Your task to perform on an android device: open chrome and create a bookmark for the current page Image 0: 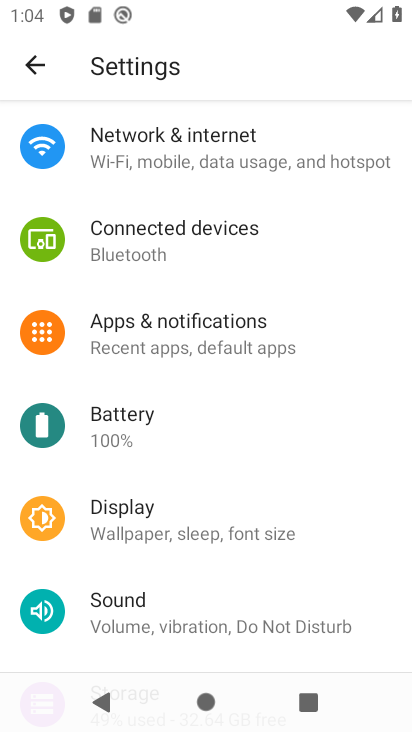
Step 0: press home button
Your task to perform on an android device: open chrome and create a bookmark for the current page Image 1: 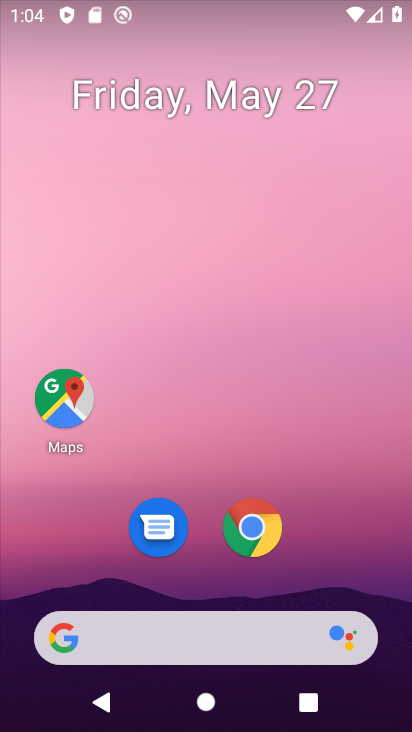
Step 1: click (268, 540)
Your task to perform on an android device: open chrome and create a bookmark for the current page Image 2: 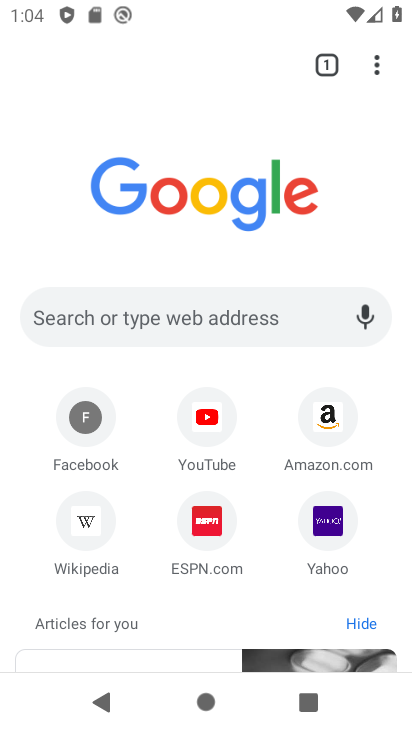
Step 2: click (382, 59)
Your task to perform on an android device: open chrome and create a bookmark for the current page Image 3: 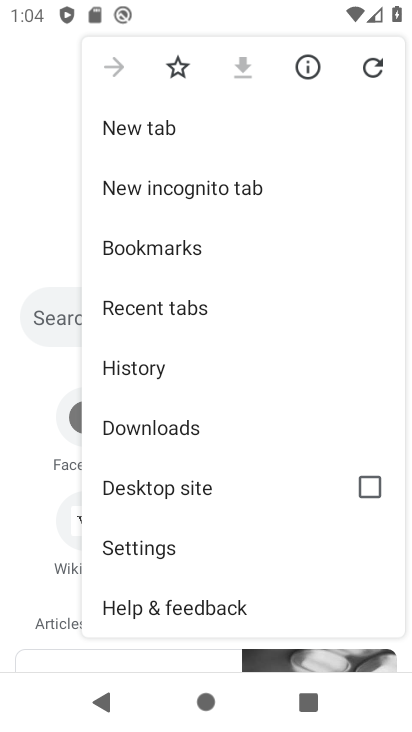
Step 3: click (168, 66)
Your task to perform on an android device: open chrome and create a bookmark for the current page Image 4: 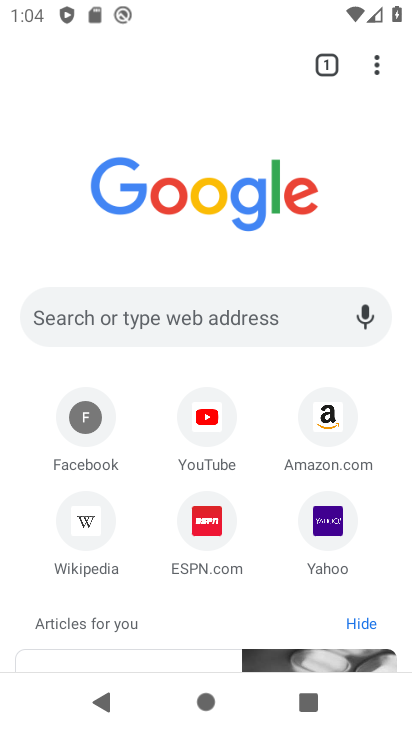
Step 4: click (371, 73)
Your task to perform on an android device: open chrome and create a bookmark for the current page Image 5: 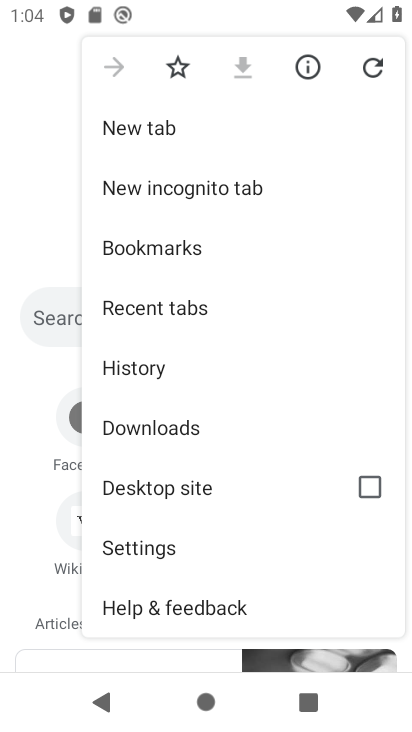
Step 5: click (177, 65)
Your task to perform on an android device: open chrome and create a bookmark for the current page Image 6: 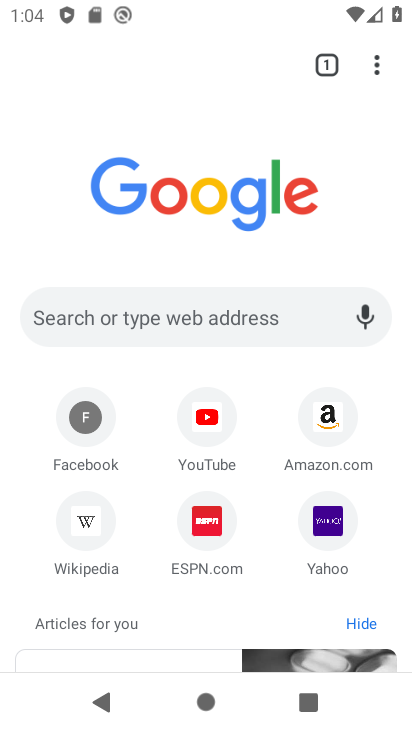
Step 6: task complete